Your task to perform on an android device: Go to Google maps Image 0: 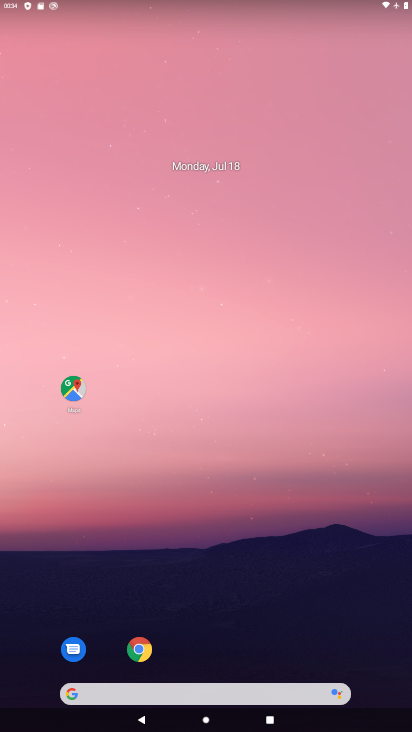
Step 0: click (76, 385)
Your task to perform on an android device: Go to Google maps Image 1: 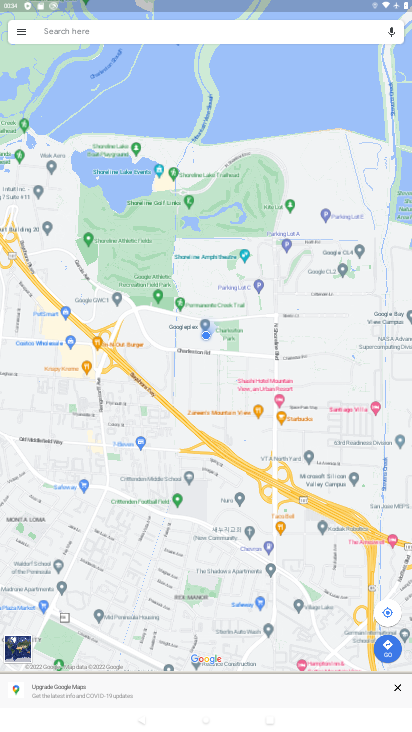
Step 1: task complete